Your task to perform on an android device: toggle wifi Image 0: 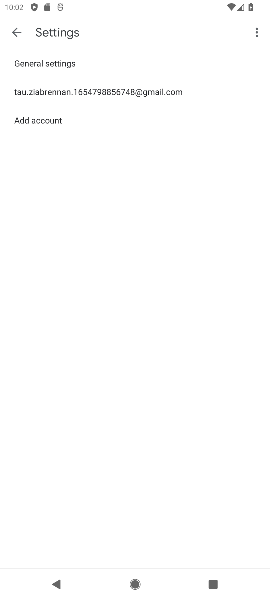
Step 0: press home button
Your task to perform on an android device: toggle wifi Image 1: 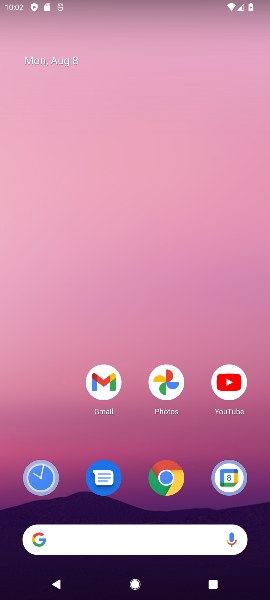
Step 1: drag from (132, 517) to (144, 80)
Your task to perform on an android device: toggle wifi Image 2: 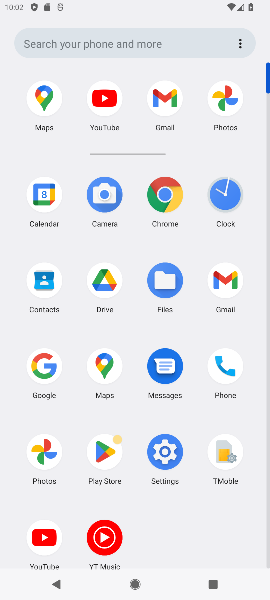
Step 2: click (170, 453)
Your task to perform on an android device: toggle wifi Image 3: 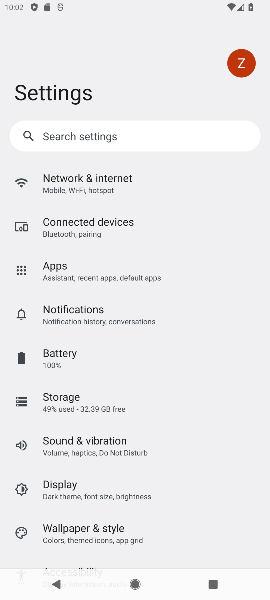
Step 3: click (105, 178)
Your task to perform on an android device: toggle wifi Image 4: 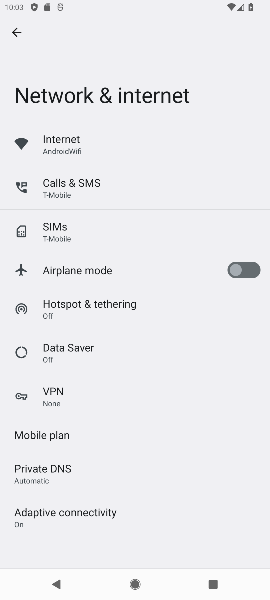
Step 4: click (72, 142)
Your task to perform on an android device: toggle wifi Image 5: 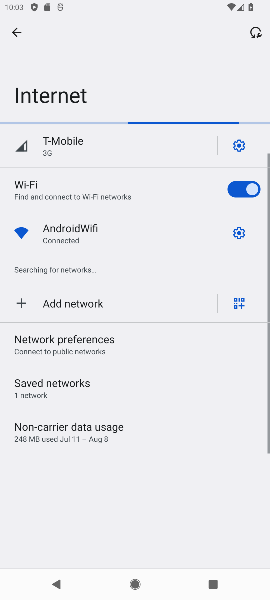
Step 5: click (247, 192)
Your task to perform on an android device: toggle wifi Image 6: 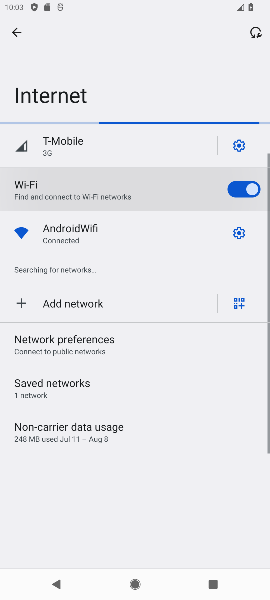
Step 6: task complete